Your task to perform on an android device: change notification settings in the gmail app Image 0: 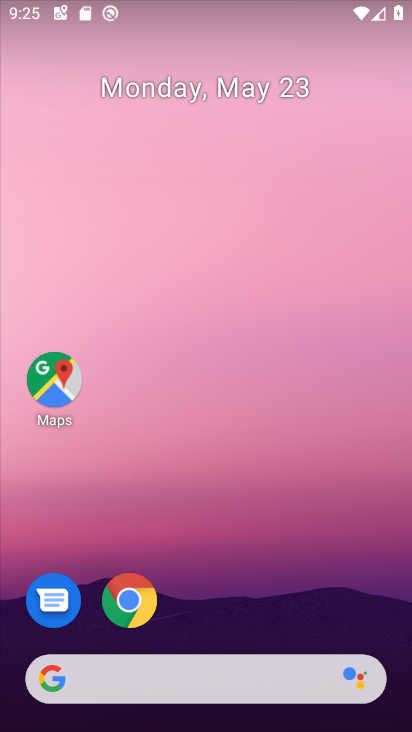
Step 0: drag from (240, 727) to (243, 13)
Your task to perform on an android device: change notification settings in the gmail app Image 1: 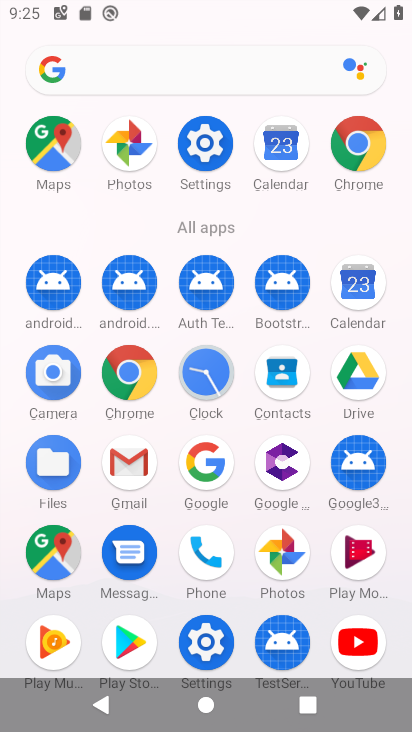
Step 1: click (126, 467)
Your task to perform on an android device: change notification settings in the gmail app Image 2: 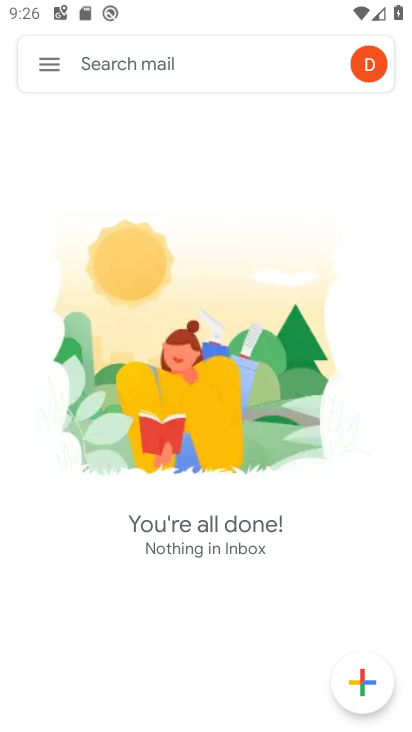
Step 2: click (46, 63)
Your task to perform on an android device: change notification settings in the gmail app Image 3: 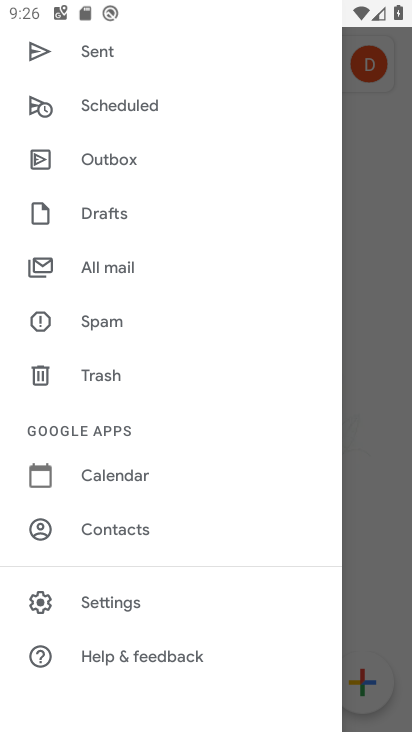
Step 3: click (100, 603)
Your task to perform on an android device: change notification settings in the gmail app Image 4: 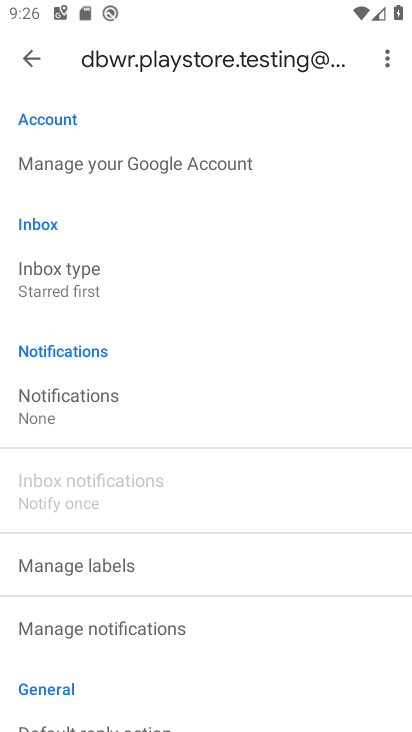
Step 4: click (62, 397)
Your task to perform on an android device: change notification settings in the gmail app Image 5: 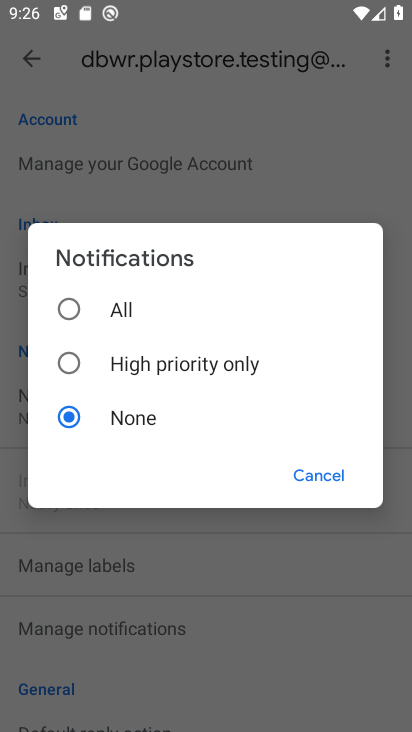
Step 5: click (68, 310)
Your task to perform on an android device: change notification settings in the gmail app Image 6: 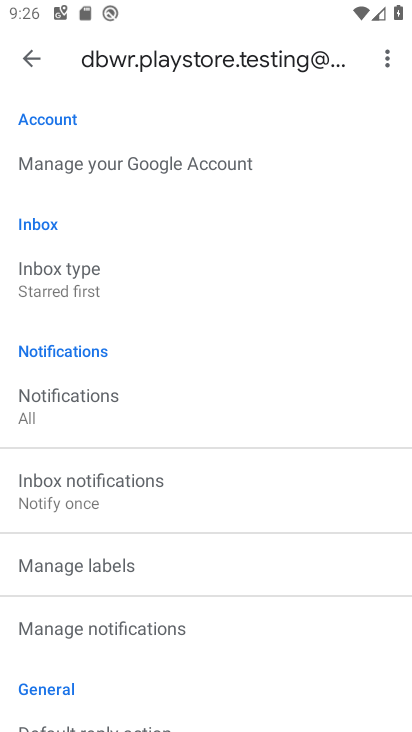
Step 6: task complete